Your task to perform on an android device: Go to eBay Image 0: 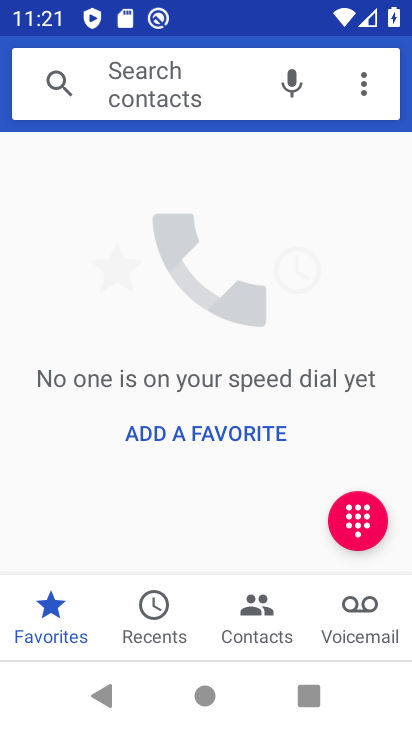
Step 0: press home button
Your task to perform on an android device: Go to eBay Image 1: 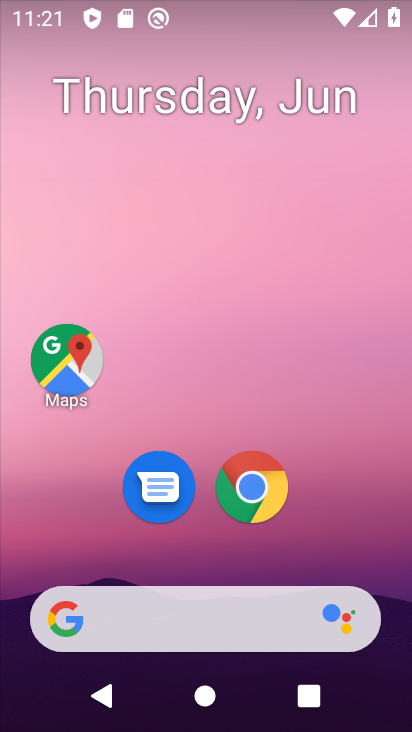
Step 1: click (269, 496)
Your task to perform on an android device: Go to eBay Image 2: 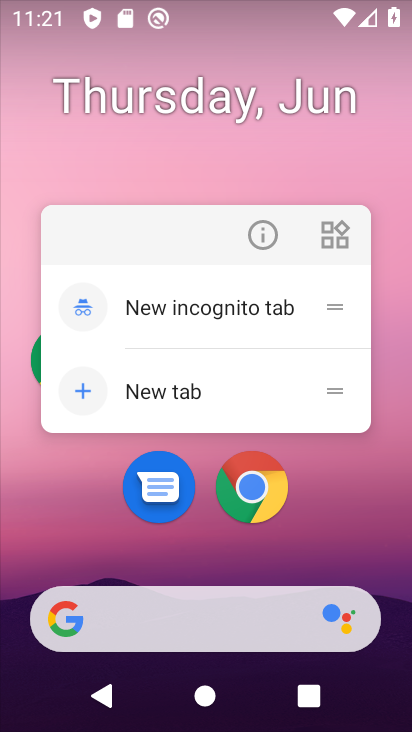
Step 2: click (261, 497)
Your task to perform on an android device: Go to eBay Image 3: 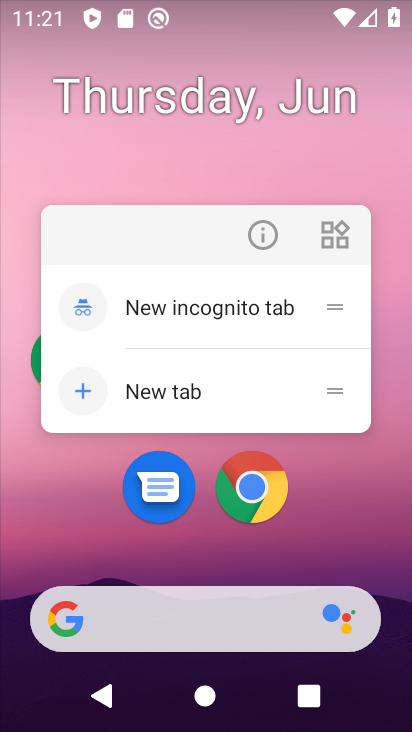
Step 3: click (250, 482)
Your task to perform on an android device: Go to eBay Image 4: 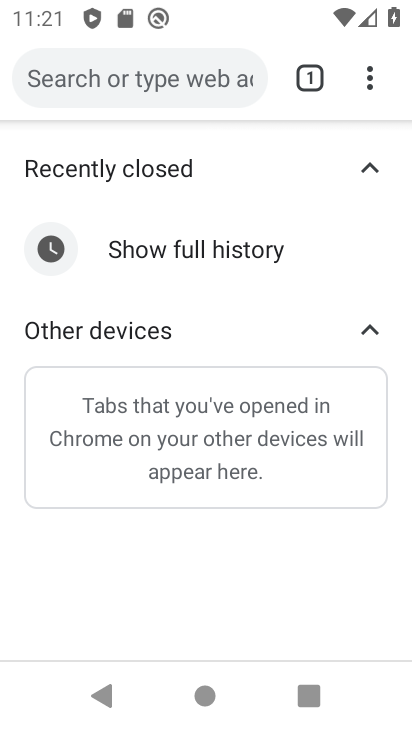
Step 4: drag from (394, 85) to (346, 147)
Your task to perform on an android device: Go to eBay Image 5: 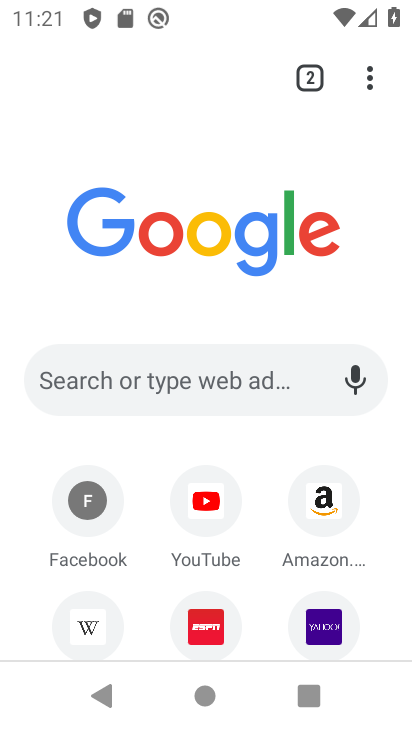
Step 5: drag from (112, 599) to (159, 405)
Your task to perform on an android device: Go to eBay Image 6: 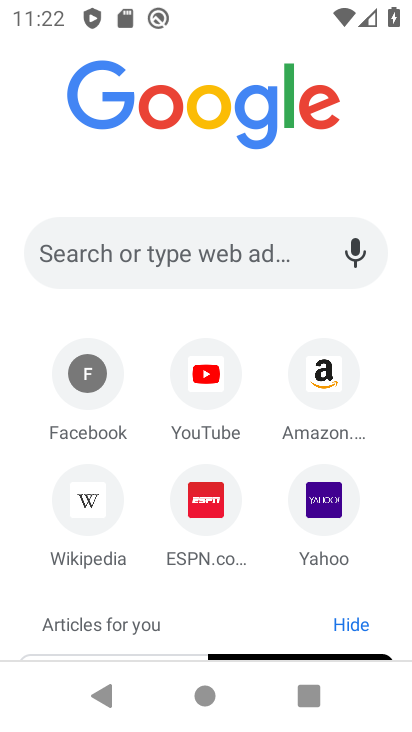
Step 6: click (195, 248)
Your task to perform on an android device: Go to eBay Image 7: 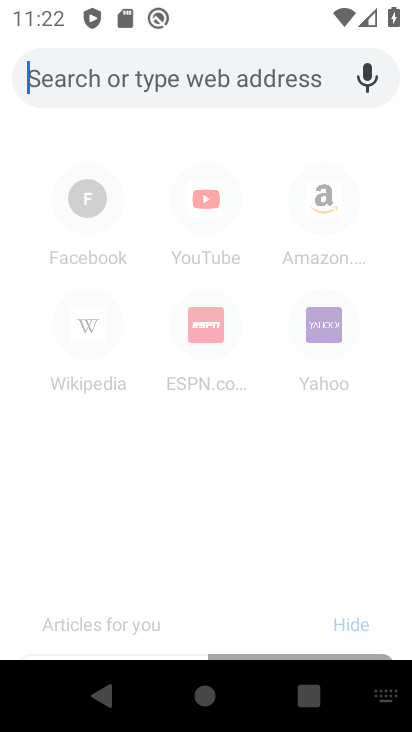
Step 7: type "eBay"
Your task to perform on an android device: Go to eBay Image 8: 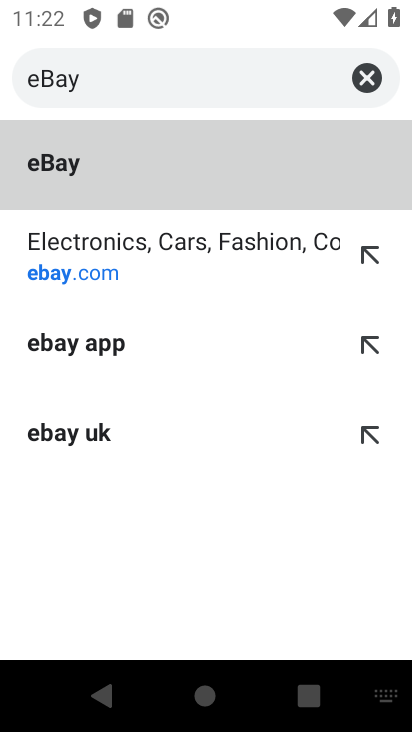
Step 8: click (119, 262)
Your task to perform on an android device: Go to eBay Image 9: 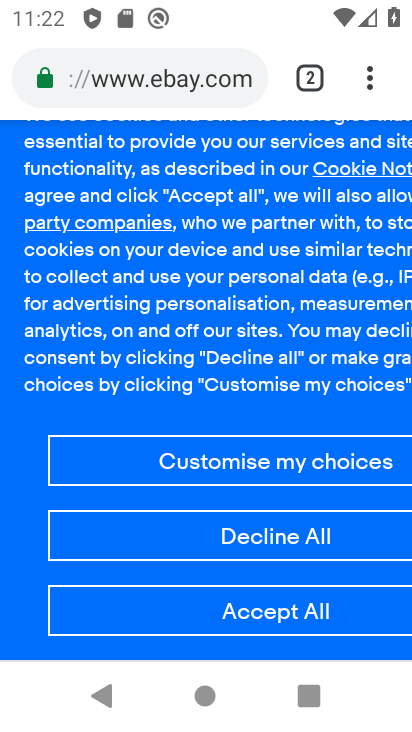
Step 9: task complete